Your task to perform on an android device: Go to settings Image 0: 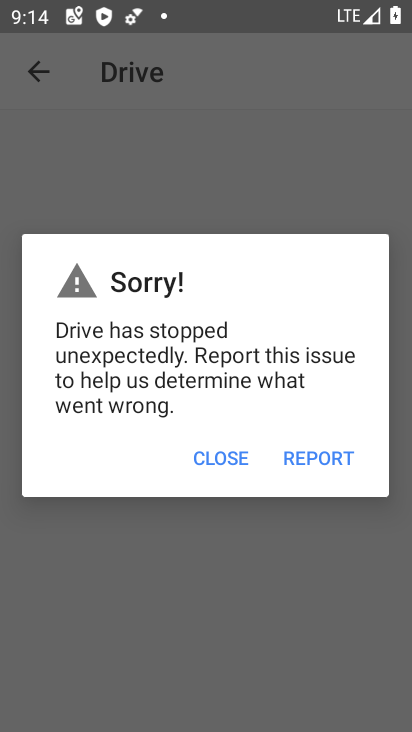
Step 0: press home button
Your task to perform on an android device: Go to settings Image 1: 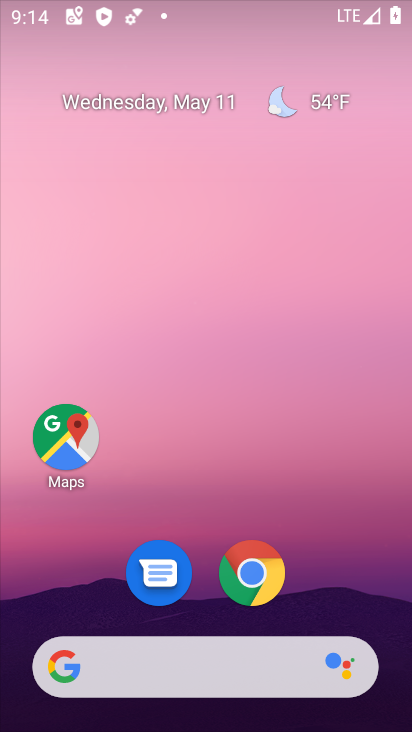
Step 1: drag from (267, 665) to (344, 16)
Your task to perform on an android device: Go to settings Image 2: 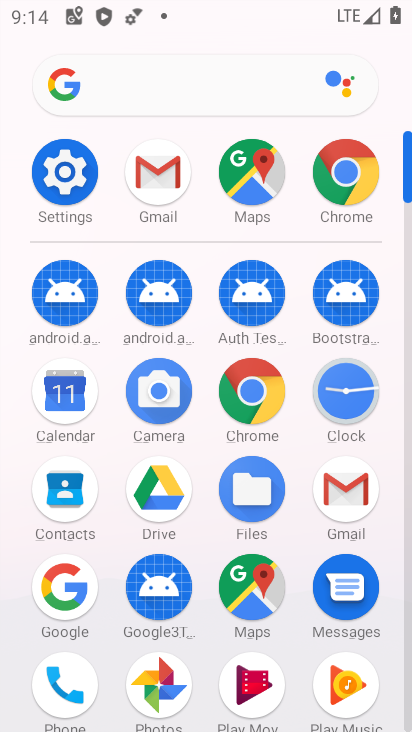
Step 2: click (63, 173)
Your task to perform on an android device: Go to settings Image 3: 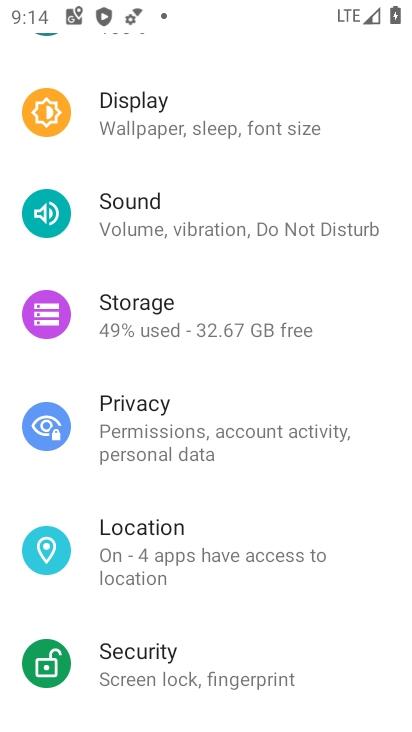
Step 3: task complete